Your task to perform on an android device: see sites visited before in the chrome app Image 0: 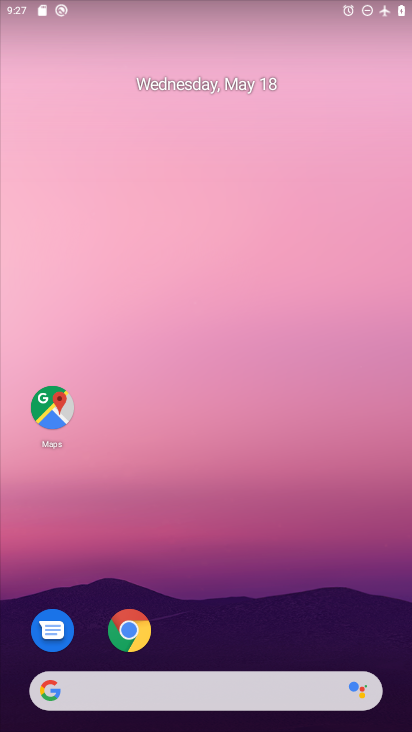
Step 0: click (129, 621)
Your task to perform on an android device: see sites visited before in the chrome app Image 1: 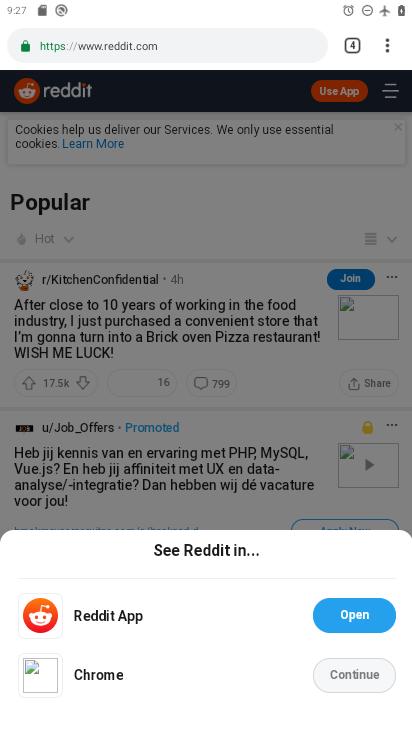
Step 1: click (344, 679)
Your task to perform on an android device: see sites visited before in the chrome app Image 2: 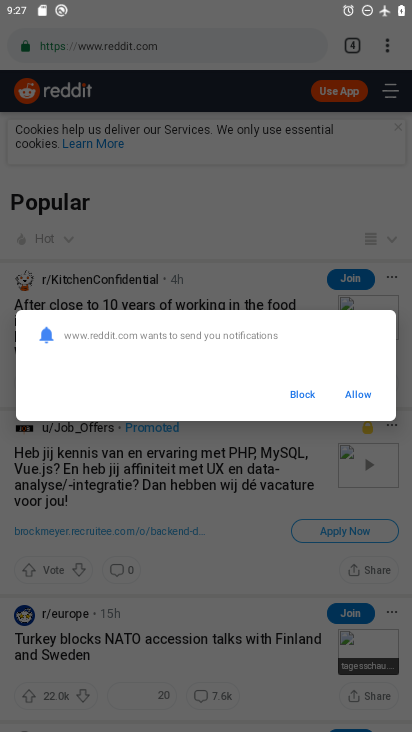
Step 2: click (360, 394)
Your task to perform on an android device: see sites visited before in the chrome app Image 3: 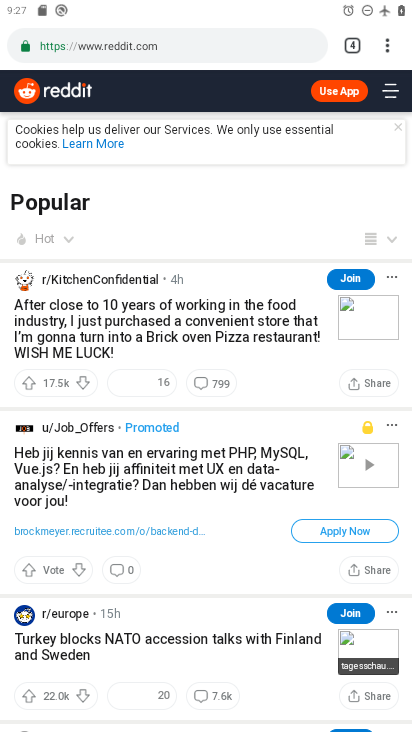
Step 3: click (383, 37)
Your task to perform on an android device: see sites visited before in the chrome app Image 4: 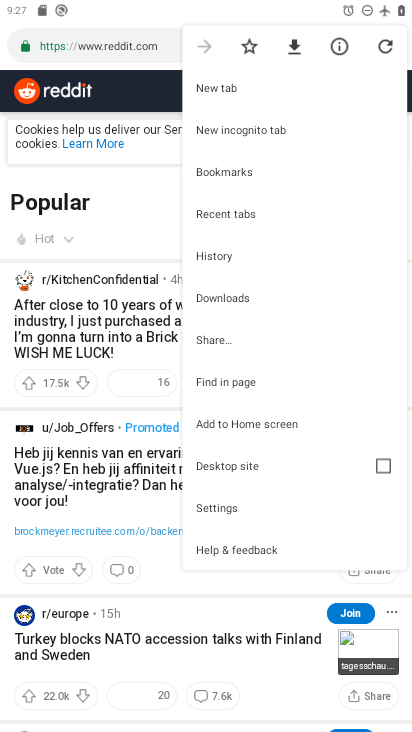
Step 4: click (227, 255)
Your task to perform on an android device: see sites visited before in the chrome app Image 5: 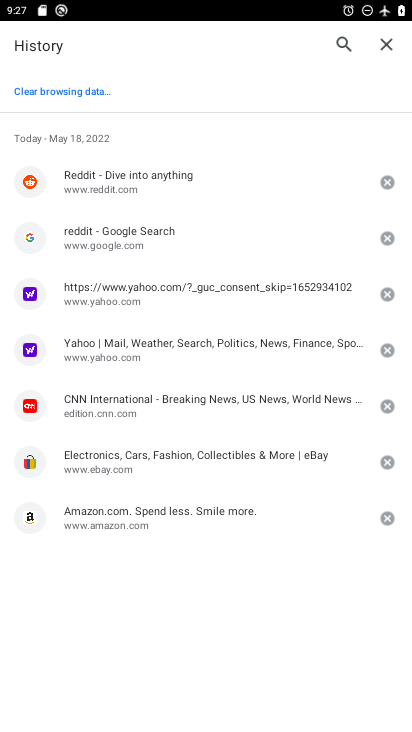
Step 5: task complete